Your task to perform on an android device: Go to eBay Image 0: 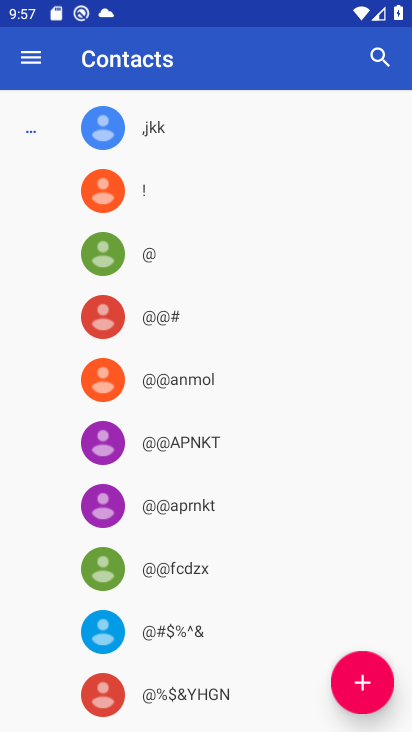
Step 0: press home button
Your task to perform on an android device: Go to eBay Image 1: 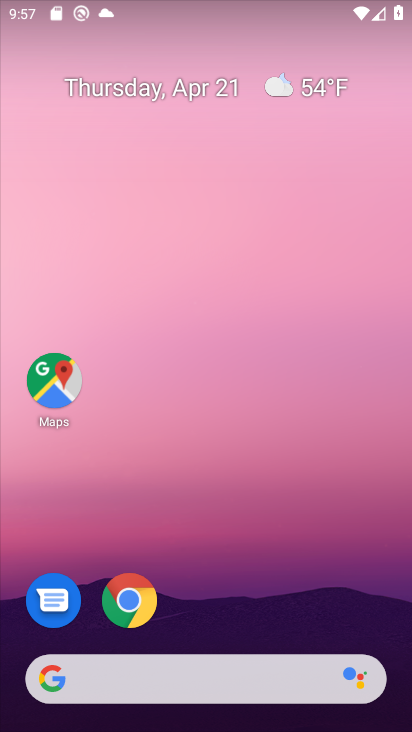
Step 1: drag from (231, 594) to (245, 38)
Your task to perform on an android device: Go to eBay Image 2: 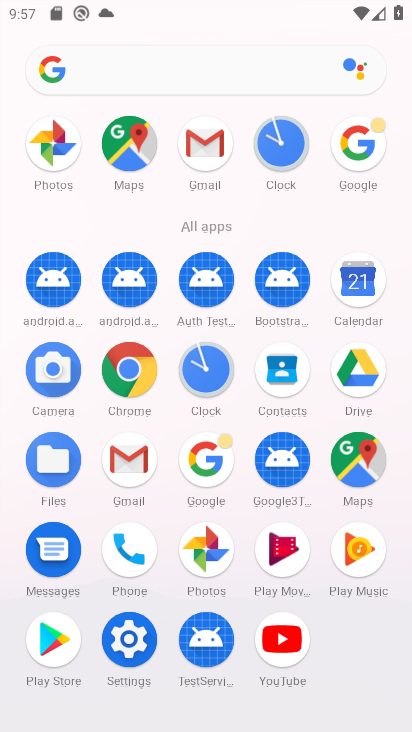
Step 2: click (131, 376)
Your task to perform on an android device: Go to eBay Image 3: 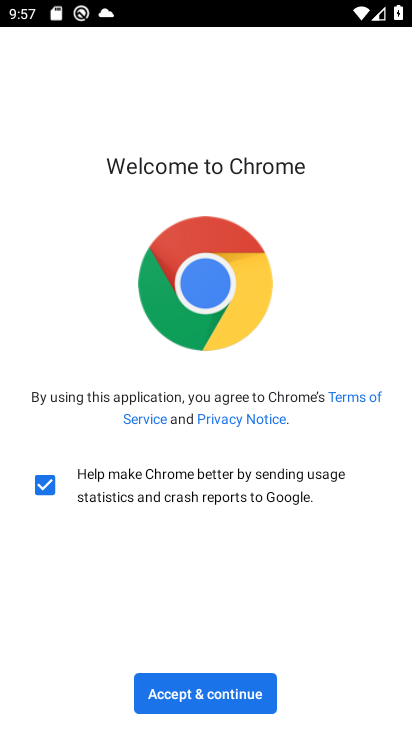
Step 3: click (191, 685)
Your task to perform on an android device: Go to eBay Image 4: 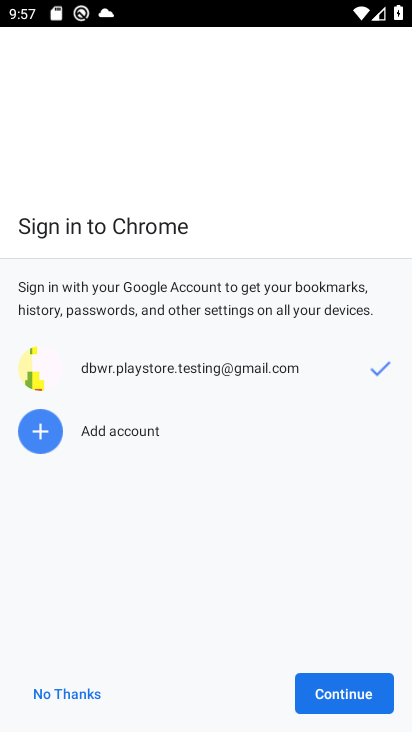
Step 4: click (356, 695)
Your task to perform on an android device: Go to eBay Image 5: 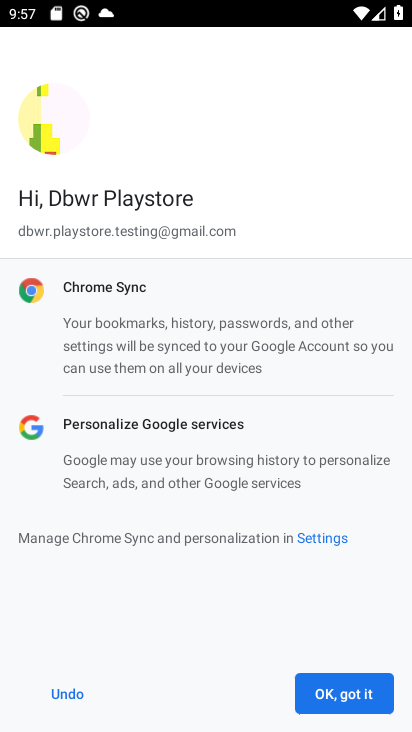
Step 5: click (352, 685)
Your task to perform on an android device: Go to eBay Image 6: 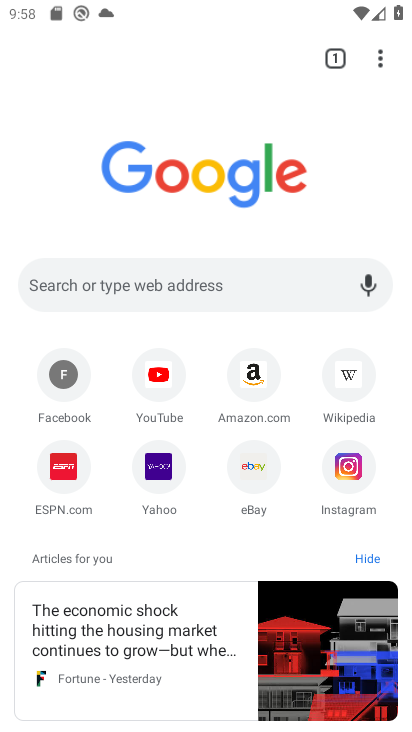
Step 6: click (250, 465)
Your task to perform on an android device: Go to eBay Image 7: 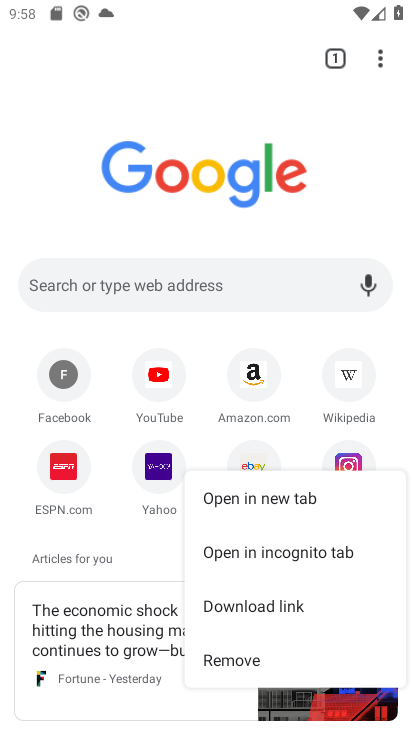
Step 7: click (259, 458)
Your task to perform on an android device: Go to eBay Image 8: 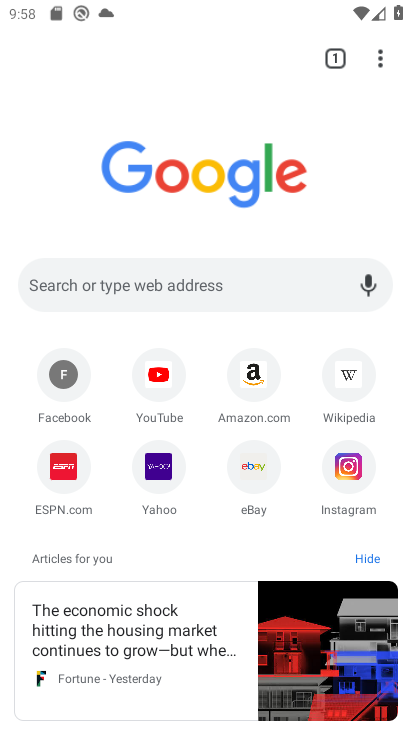
Step 8: click (254, 472)
Your task to perform on an android device: Go to eBay Image 9: 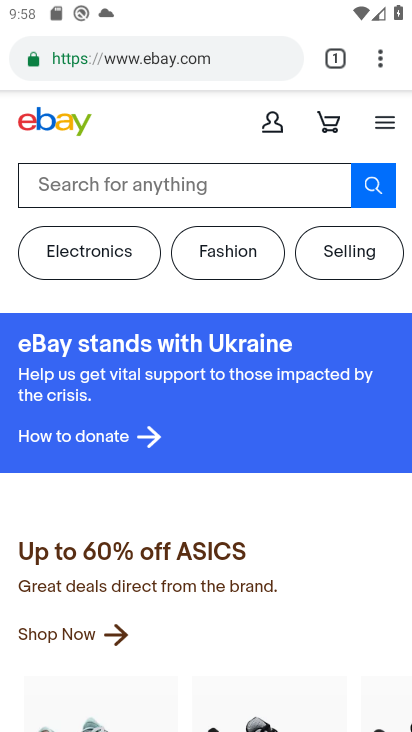
Step 9: task complete